Your task to perform on an android device: toggle notification dots Image 0: 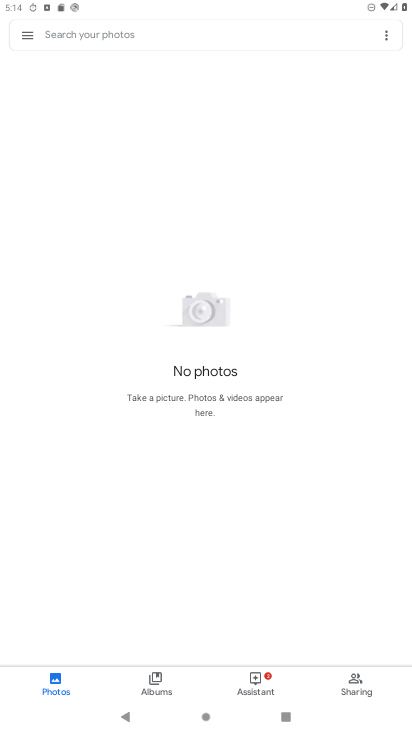
Step 0: press home button
Your task to perform on an android device: toggle notification dots Image 1: 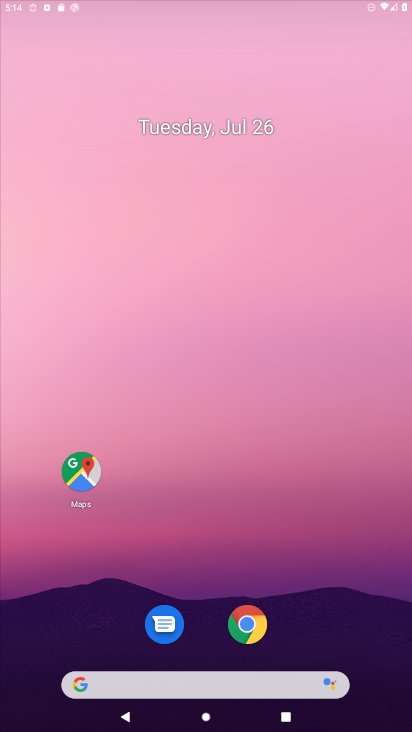
Step 1: drag from (258, 681) to (300, 39)
Your task to perform on an android device: toggle notification dots Image 2: 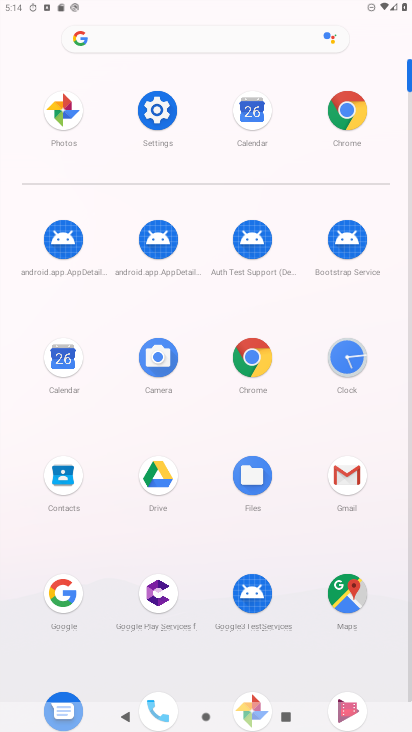
Step 2: click (155, 125)
Your task to perform on an android device: toggle notification dots Image 3: 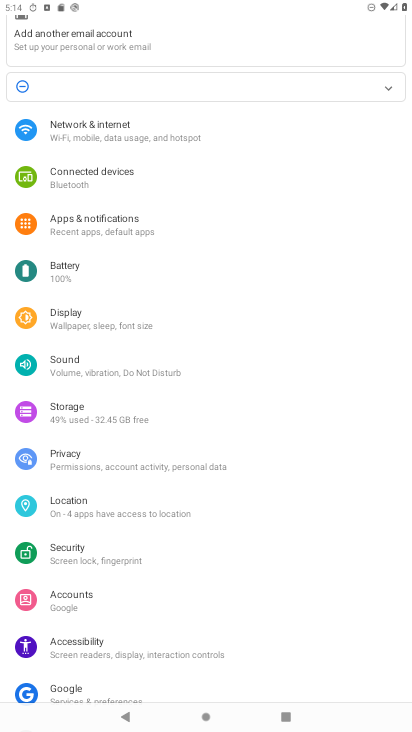
Step 3: click (99, 156)
Your task to perform on an android device: toggle notification dots Image 4: 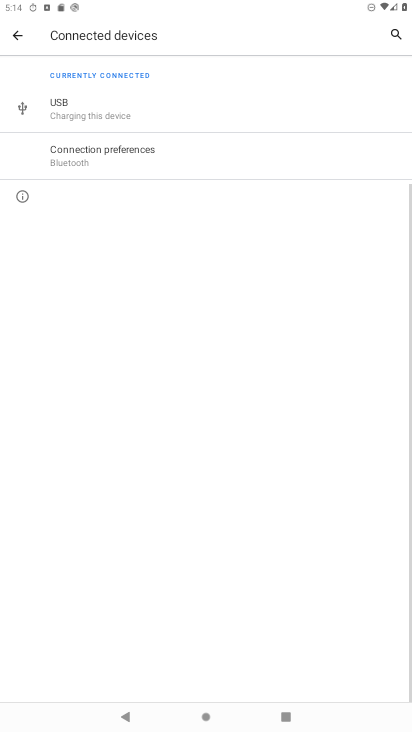
Step 4: press back button
Your task to perform on an android device: toggle notification dots Image 5: 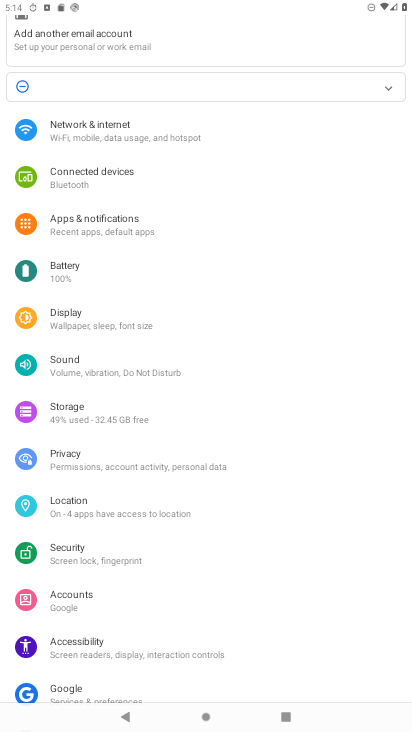
Step 5: click (96, 217)
Your task to perform on an android device: toggle notification dots Image 6: 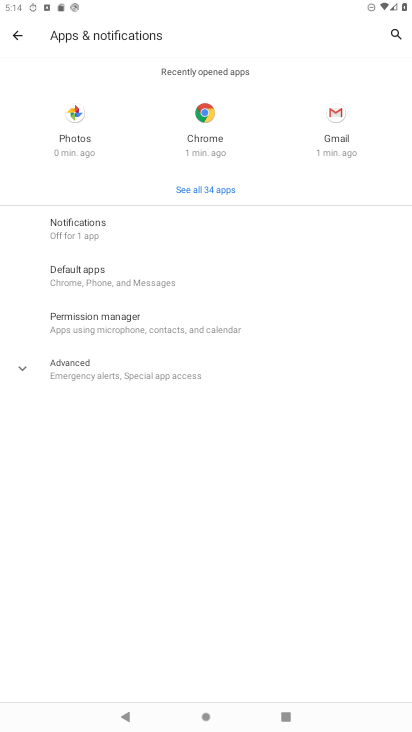
Step 6: click (139, 369)
Your task to perform on an android device: toggle notification dots Image 7: 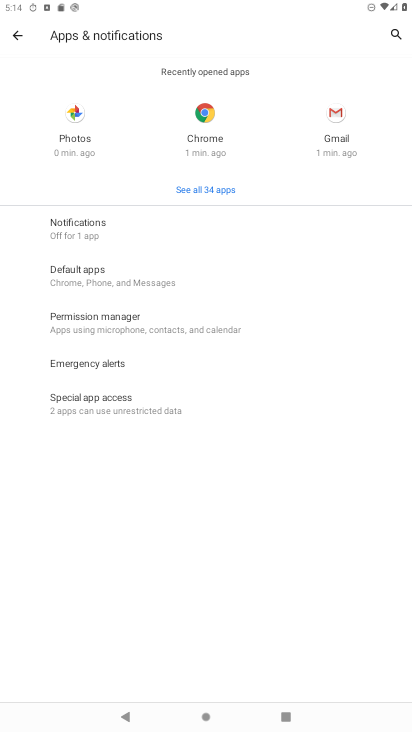
Step 7: click (123, 231)
Your task to perform on an android device: toggle notification dots Image 8: 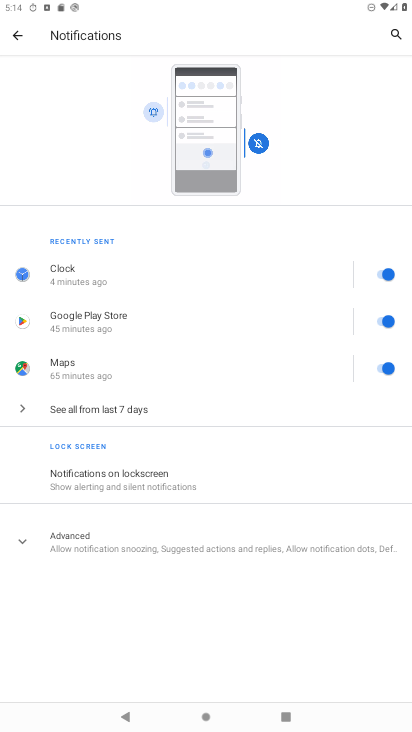
Step 8: click (163, 547)
Your task to perform on an android device: toggle notification dots Image 9: 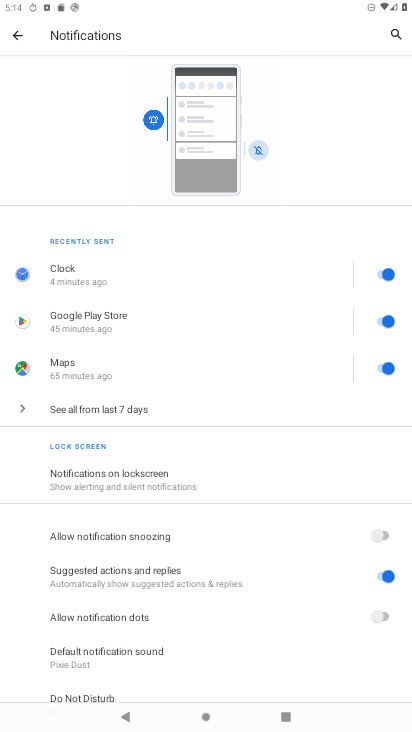
Step 9: click (390, 615)
Your task to perform on an android device: toggle notification dots Image 10: 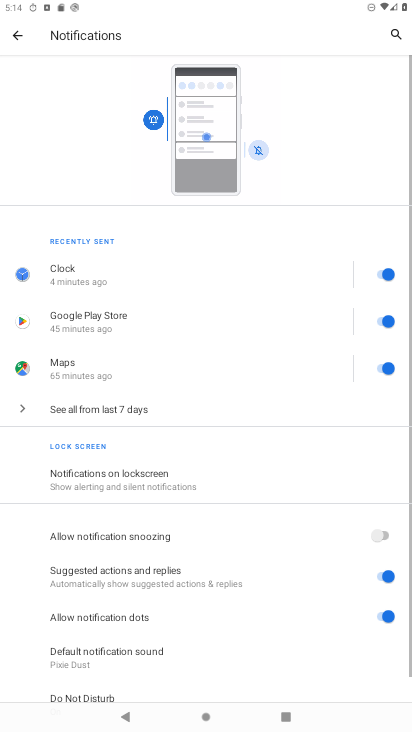
Step 10: task complete